Your task to perform on an android device: Go to Maps Image 0: 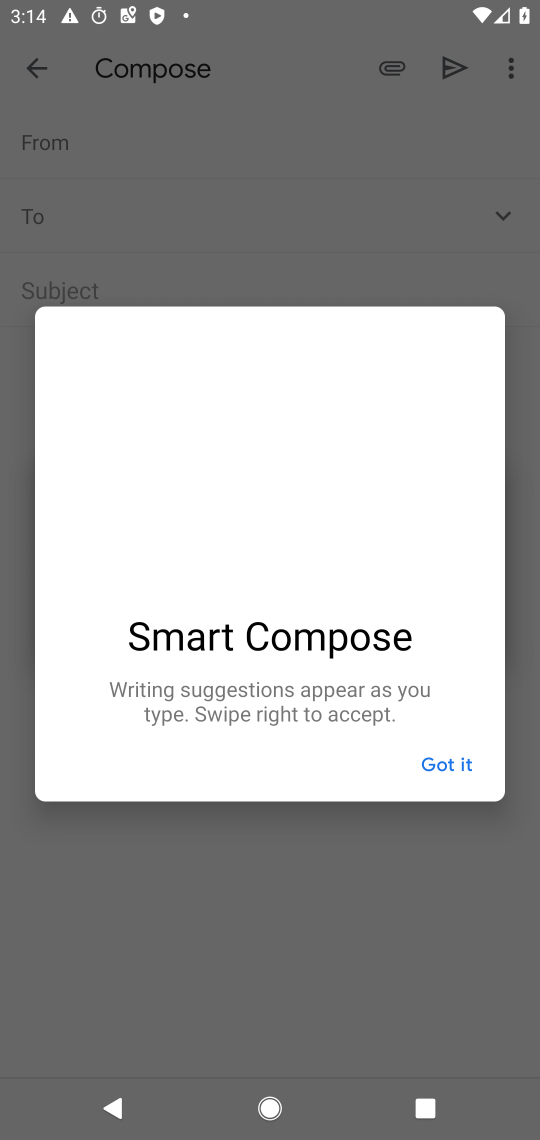
Step 0: press home button
Your task to perform on an android device: Go to Maps Image 1: 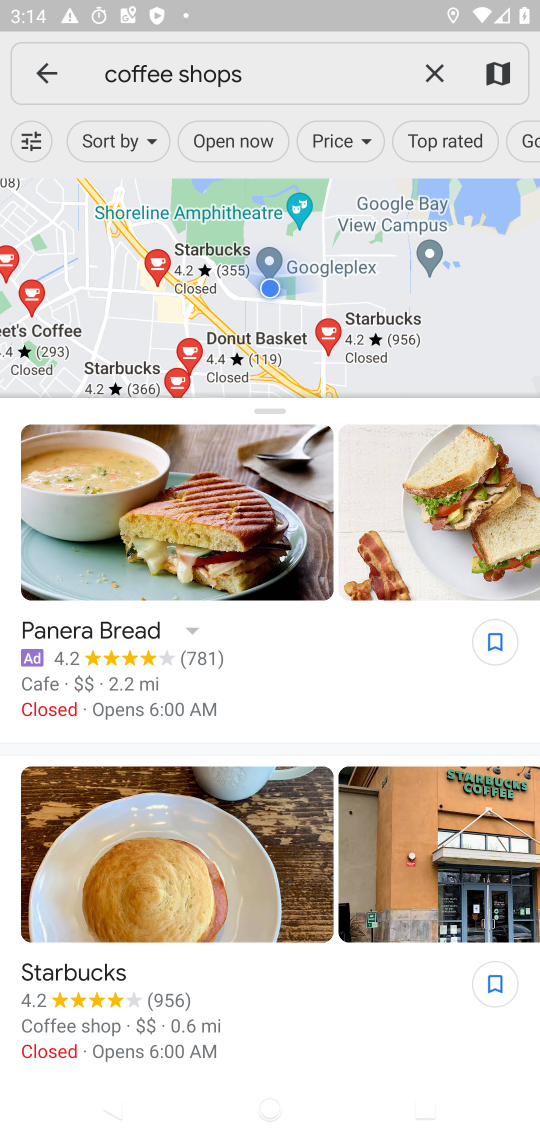
Step 1: press home button
Your task to perform on an android device: Go to Maps Image 2: 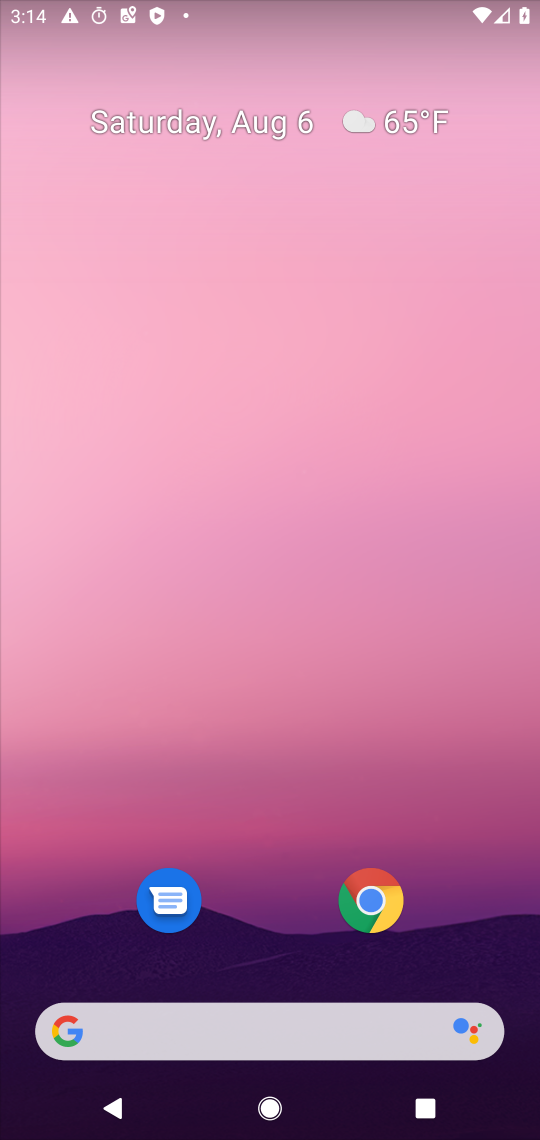
Step 2: drag from (275, 881) to (302, 188)
Your task to perform on an android device: Go to Maps Image 3: 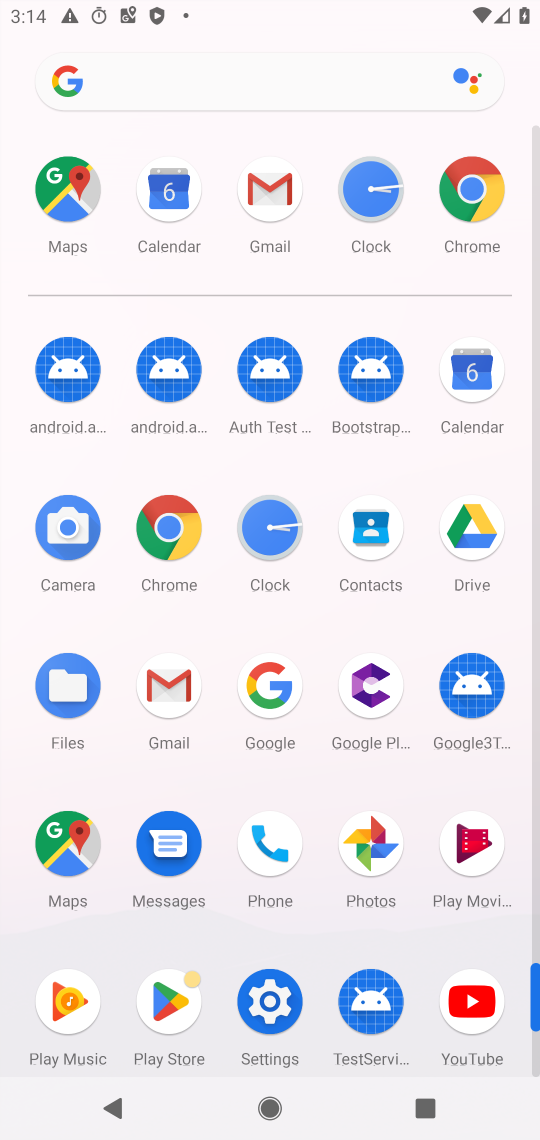
Step 3: click (73, 845)
Your task to perform on an android device: Go to Maps Image 4: 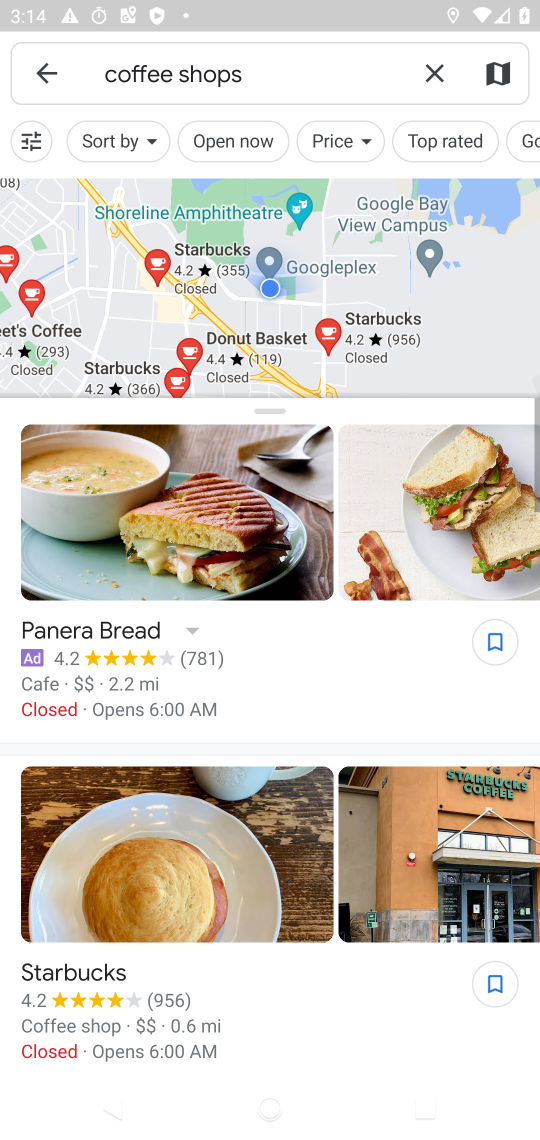
Step 4: click (434, 64)
Your task to perform on an android device: Go to Maps Image 5: 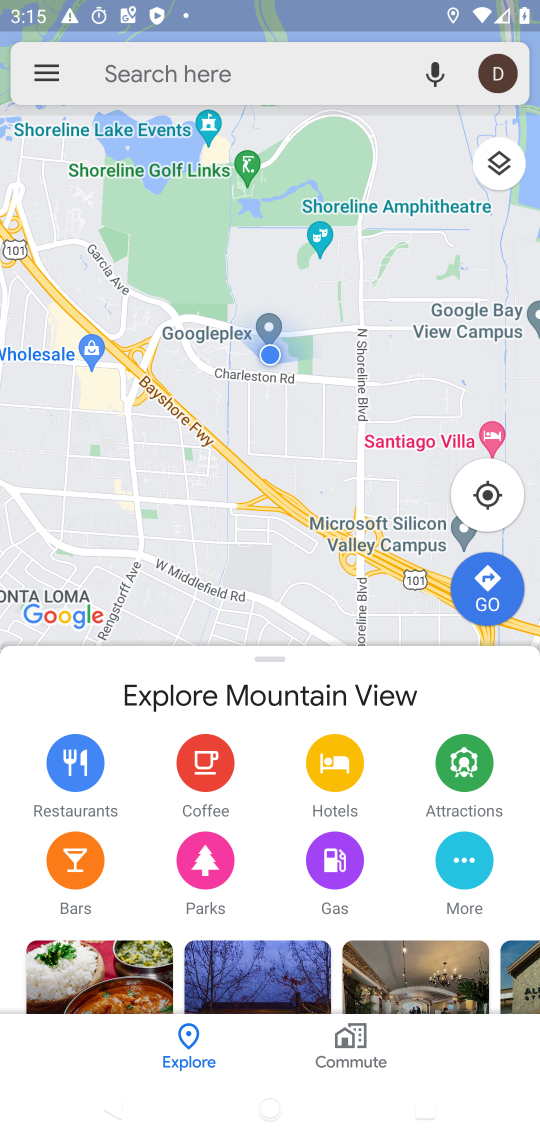
Step 5: task complete